Your task to perform on an android device: Go to Wikipedia Image 0: 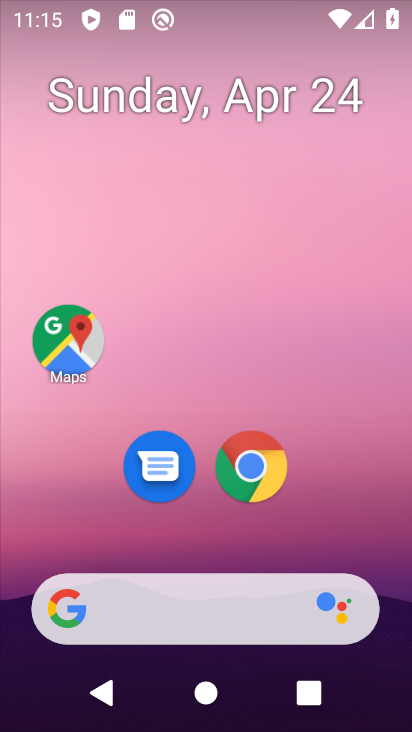
Step 0: click (259, 460)
Your task to perform on an android device: Go to Wikipedia Image 1: 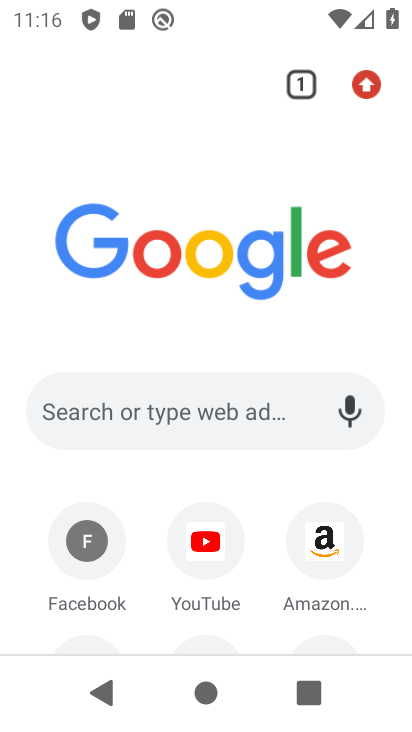
Step 1: drag from (240, 464) to (199, 263)
Your task to perform on an android device: Go to Wikipedia Image 2: 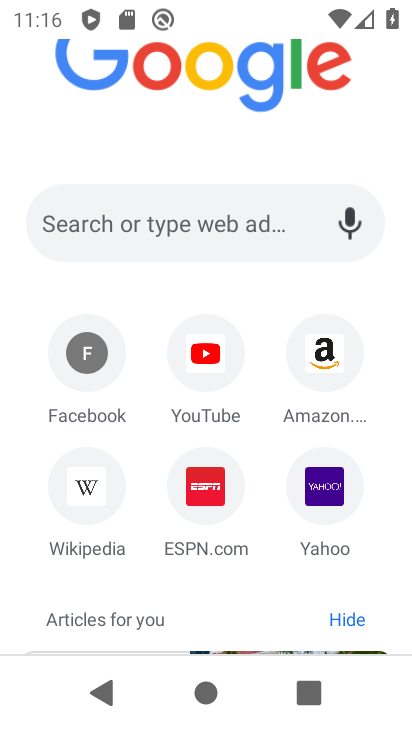
Step 2: click (95, 492)
Your task to perform on an android device: Go to Wikipedia Image 3: 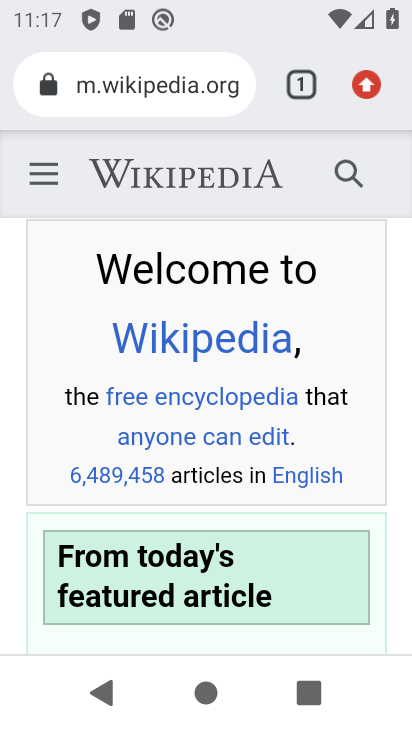
Step 3: task complete